Your task to perform on an android device: set default search engine in the chrome app Image 0: 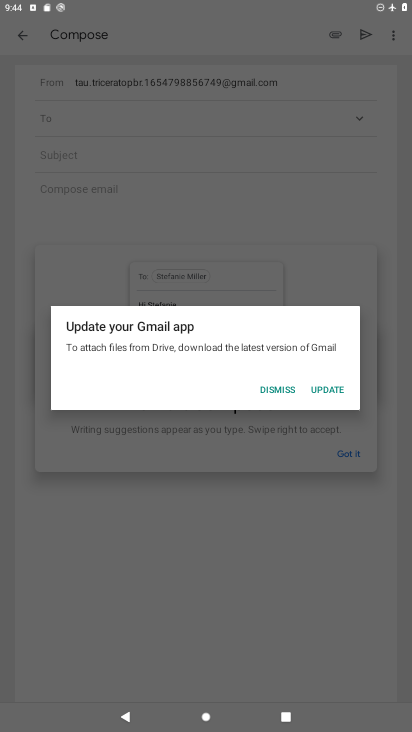
Step 0: press home button
Your task to perform on an android device: set default search engine in the chrome app Image 1: 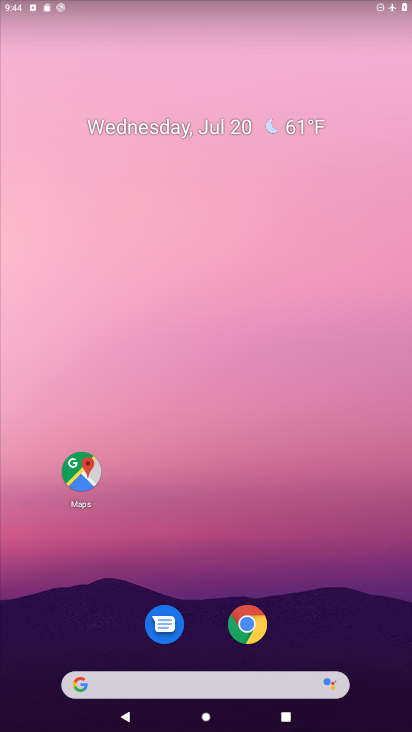
Step 1: click (249, 621)
Your task to perform on an android device: set default search engine in the chrome app Image 2: 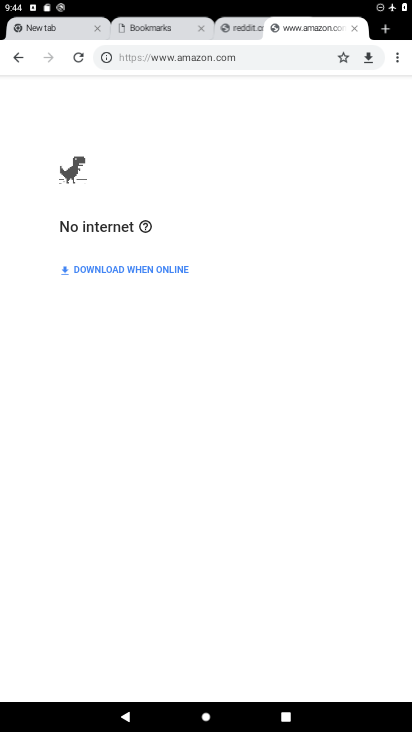
Step 2: click (399, 59)
Your task to perform on an android device: set default search engine in the chrome app Image 3: 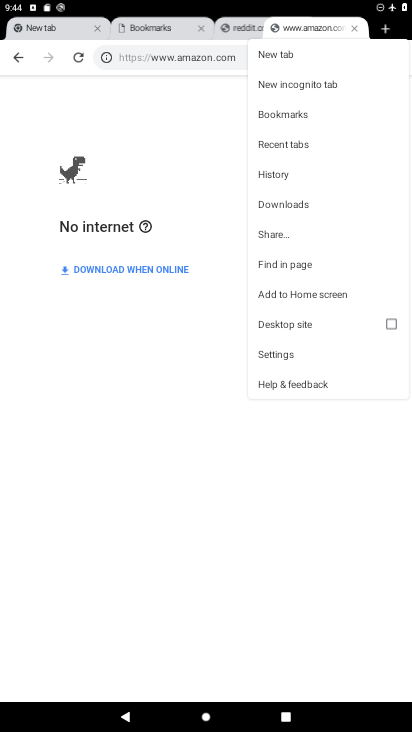
Step 3: click (318, 357)
Your task to perform on an android device: set default search engine in the chrome app Image 4: 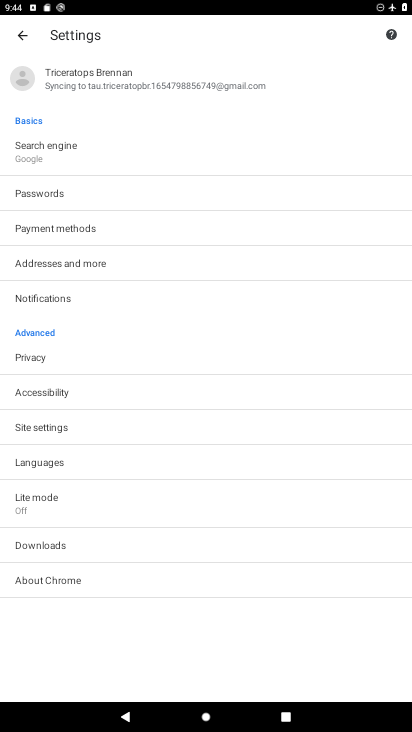
Step 4: click (112, 146)
Your task to perform on an android device: set default search engine in the chrome app Image 5: 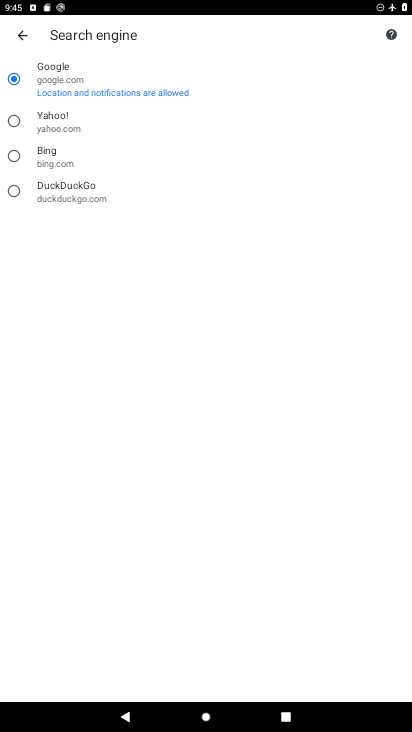
Step 5: task complete